Your task to perform on an android device: find which apps use the phone's location Image 0: 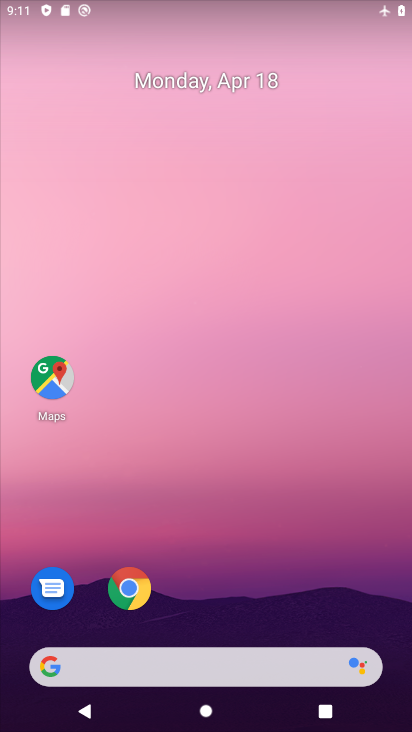
Step 0: drag from (275, 609) to (252, 92)
Your task to perform on an android device: find which apps use the phone's location Image 1: 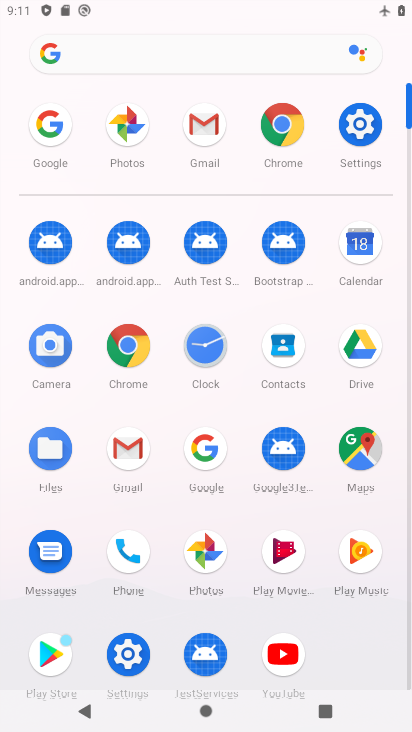
Step 1: click (348, 111)
Your task to perform on an android device: find which apps use the phone's location Image 2: 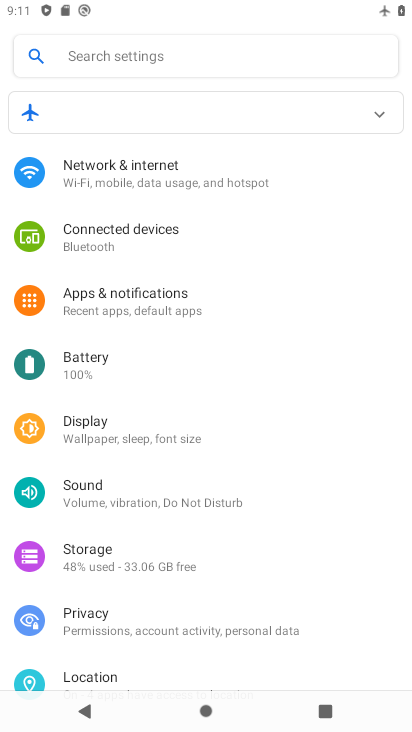
Step 2: drag from (165, 593) to (267, 177)
Your task to perform on an android device: find which apps use the phone's location Image 3: 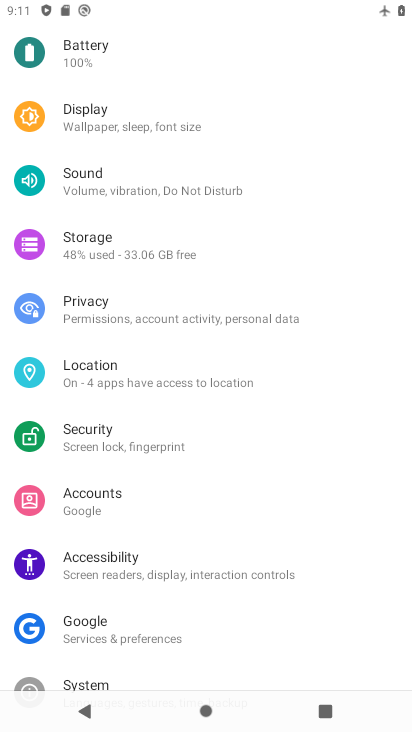
Step 3: click (102, 369)
Your task to perform on an android device: find which apps use the phone's location Image 4: 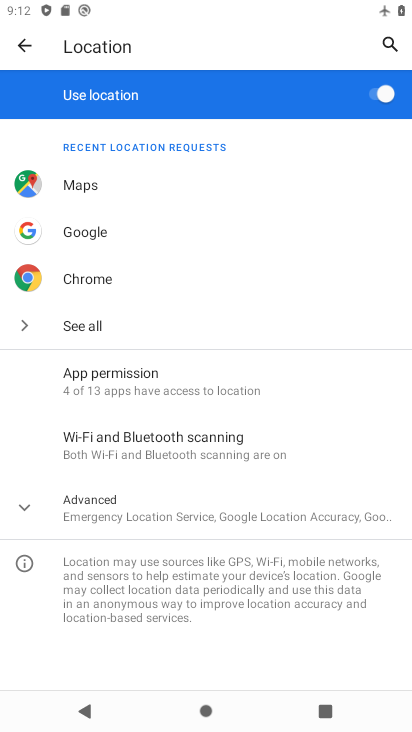
Step 4: task complete